Your task to perform on an android device: turn on data saver in the chrome app Image 0: 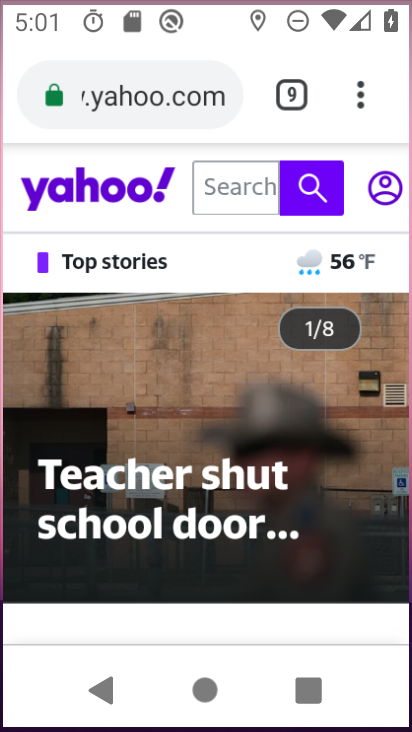
Step 0: click (274, 462)
Your task to perform on an android device: turn on data saver in the chrome app Image 1: 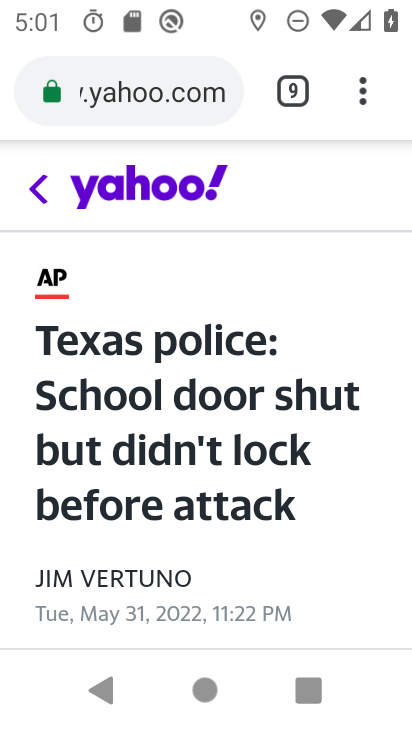
Step 1: press home button
Your task to perform on an android device: turn on data saver in the chrome app Image 2: 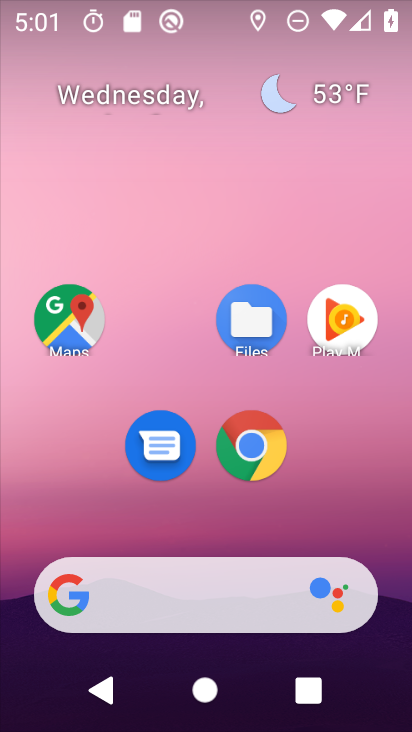
Step 2: click (277, 439)
Your task to perform on an android device: turn on data saver in the chrome app Image 3: 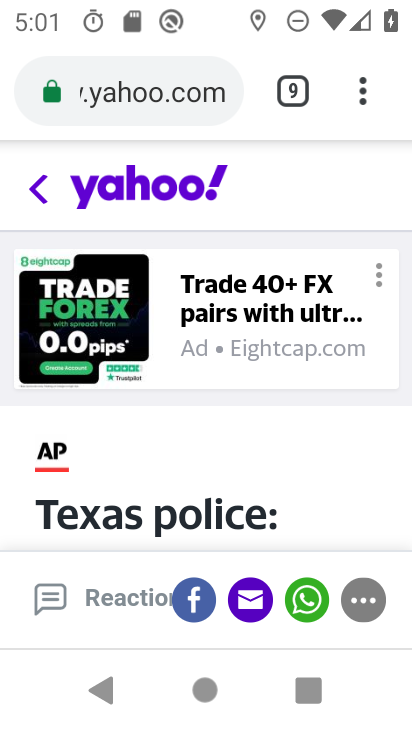
Step 3: click (362, 89)
Your task to perform on an android device: turn on data saver in the chrome app Image 4: 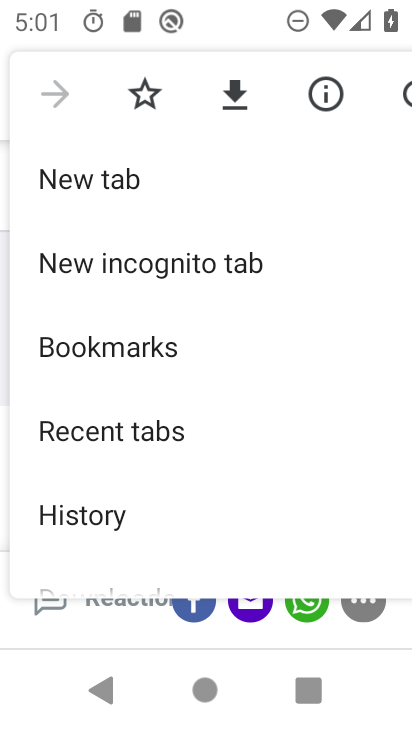
Step 4: drag from (261, 502) to (290, 213)
Your task to perform on an android device: turn on data saver in the chrome app Image 5: 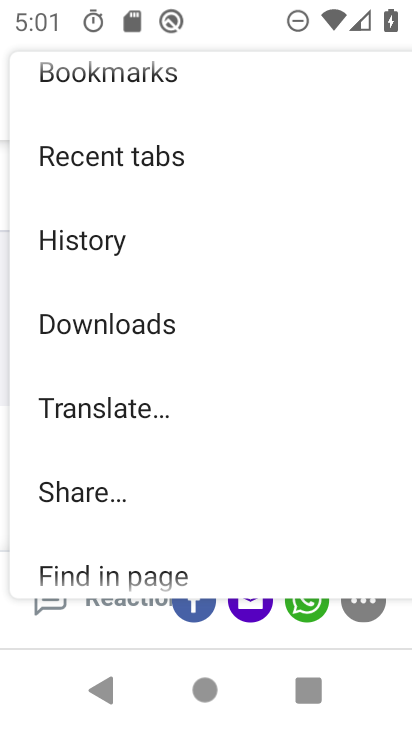
Step 5: drag from (270, 486) to (287, 168)
Your task to perform on an android device: turn on data saver in the chrome app Image 6: 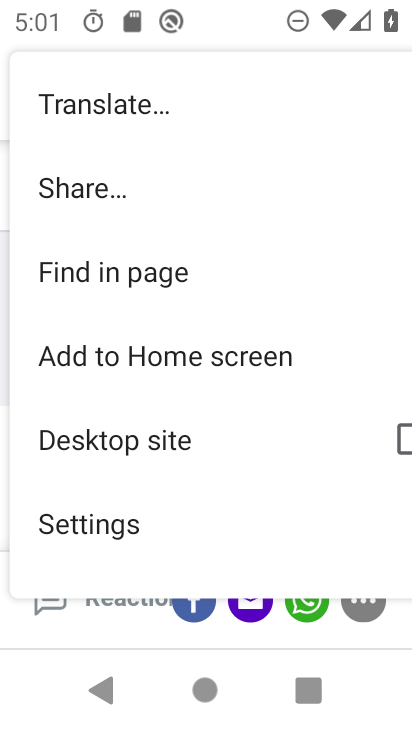
Step 6: drag from (225, 489) to (240, 157)
Your task to perform on an android device: turn on data saver in the chrome app Image 7: 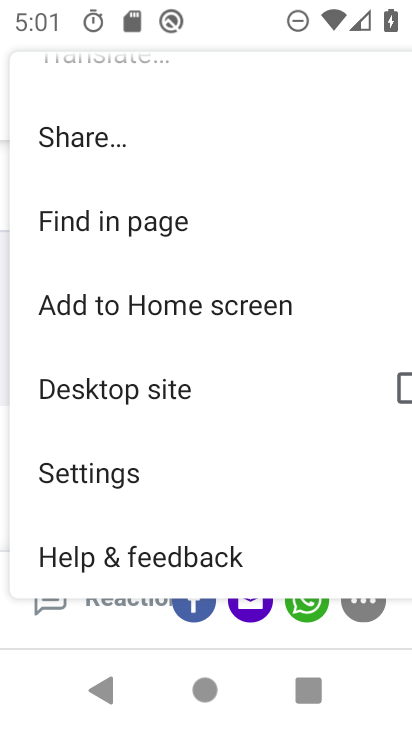
Step 7: click (175, 479)
Your task to perform on an android device: turn on data saver in the chrome app Image 8: 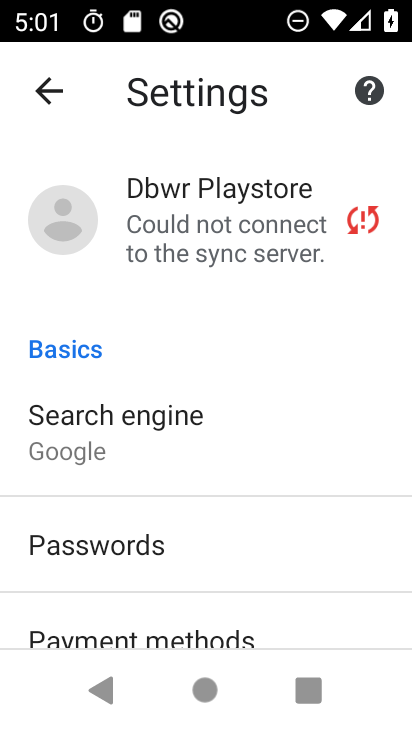
Step 8: drag from (169, 479) to (236, 143)
Your task to perform on an android device: turn on data saver in the chrome app Image 9: 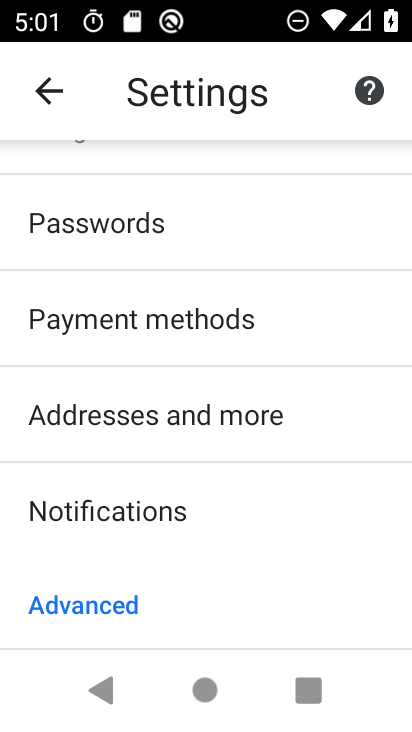
Step 9: drag from (169, 541) to (229, 223)
Your task to perform on an android device: turn on data saver in the chrome app Image 10: 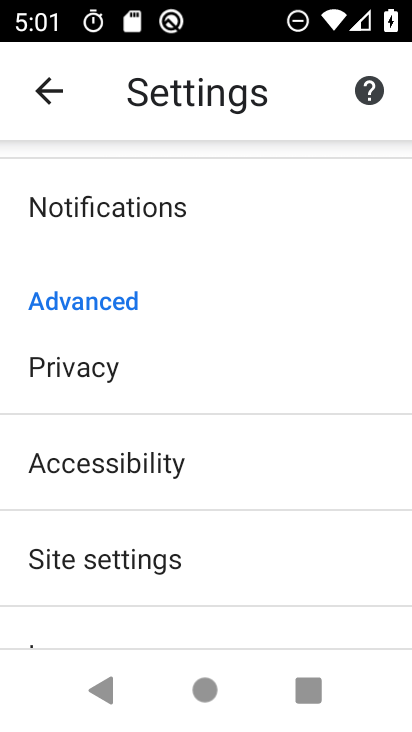
Step 10: drag from (179, 559) to (221, 243)
Your task to perform on an android device: turn on data saver in the chrome app Image 11: 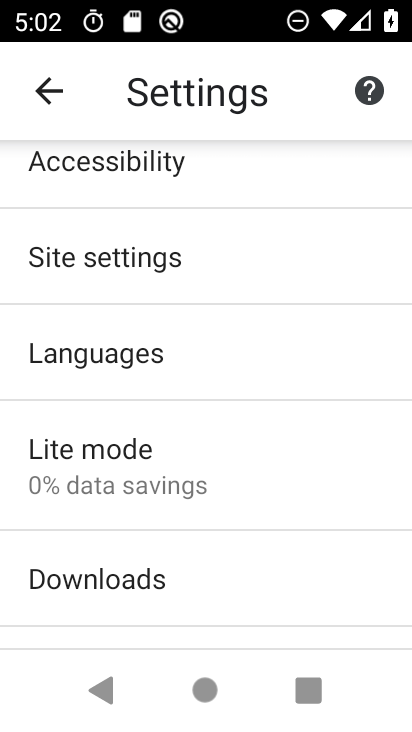
Step 11: click (226, 253)
Your task to perform on an android device: turn on data saver in the chrome app Image 12: 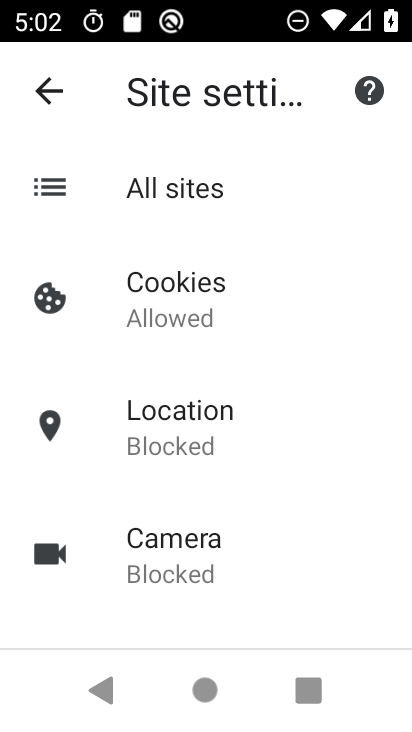
Step 12: task complete